Your task to perform on an android device: Search for flights from NYC to Buenos aires Image 0: 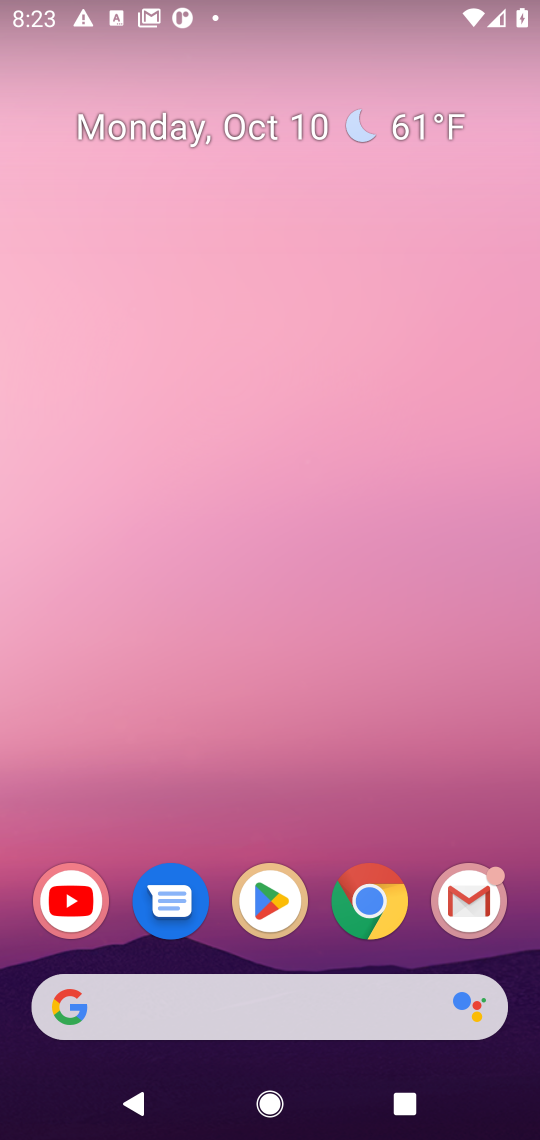
Step 0: click (213, 1008)
Your task to perform on an android device: Search for flights from NYC to Buenos aires Image 1: 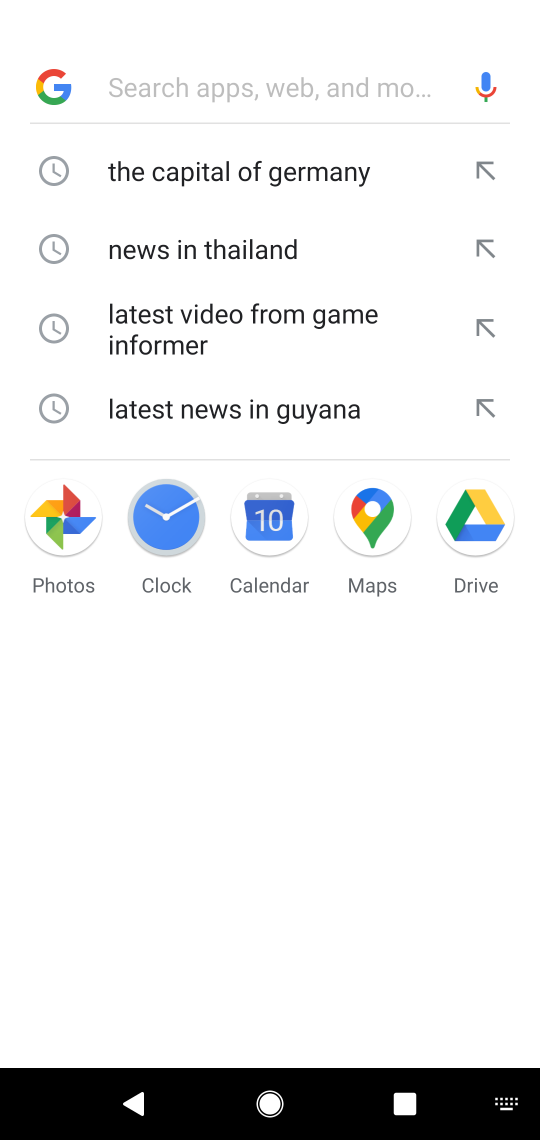
Step 1: type "flights from NYC to Buenos aires"
Your task to perform on an android device: Search for flights from NYC to Buenos aires Image 2: 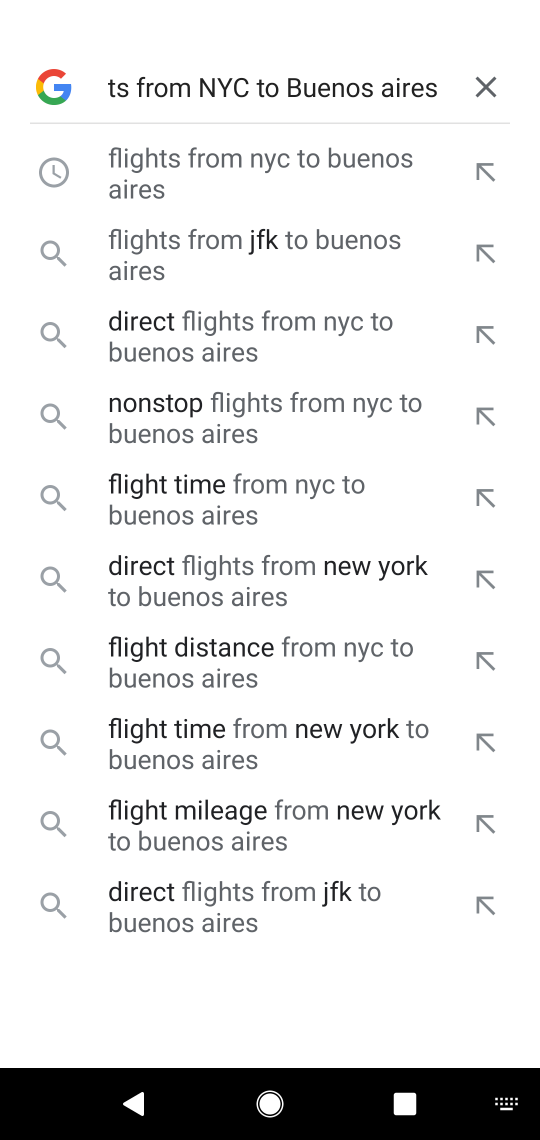
Step 2: press enter
Your task to perform on an android device: Search for flights from NYC to Buenos aires Image 3: 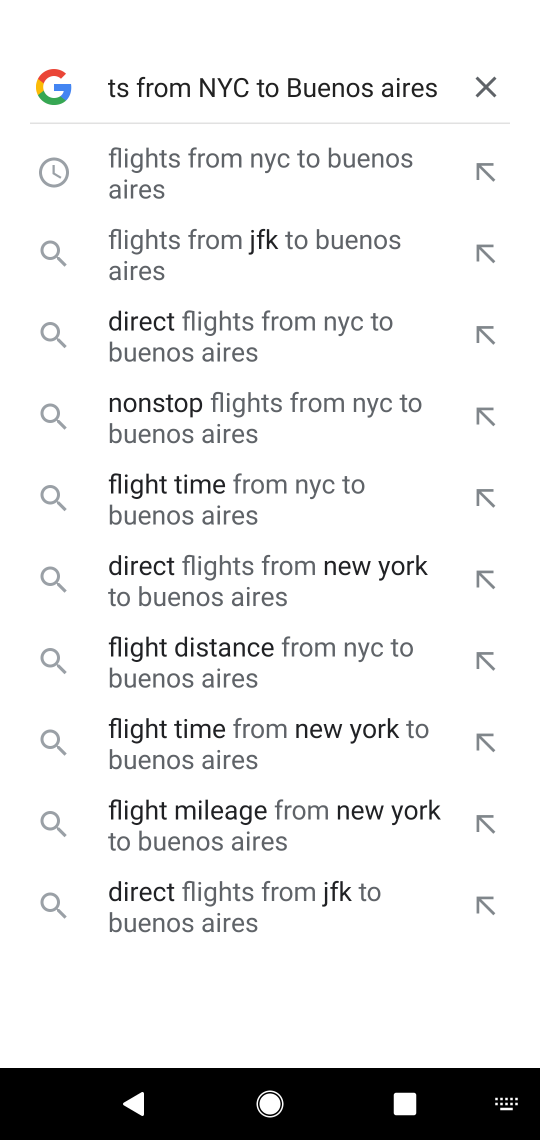
Step 3: type ""
Your task to perform on an android device: Search for flights from NYC to Buenos aires Image 4: 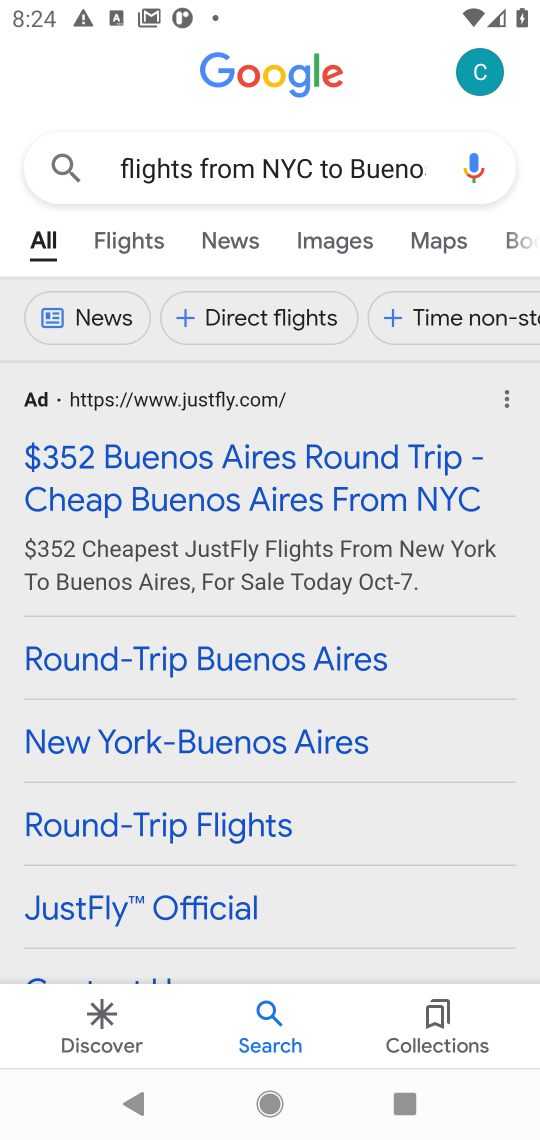
Step 4: click (176, 182)
Your task to perform on an android device: Search for flights from NYC to Buenos aires Image 5: 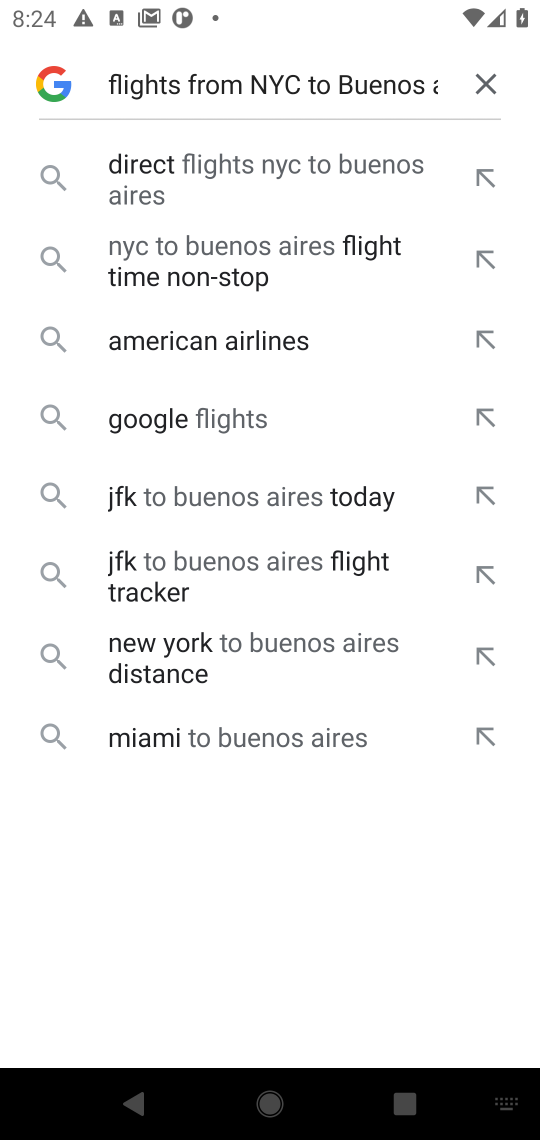
Step 5: click (312, 153)
Your task to perform on an android device: Search for flights from NYC to Buenos aires Image 6: 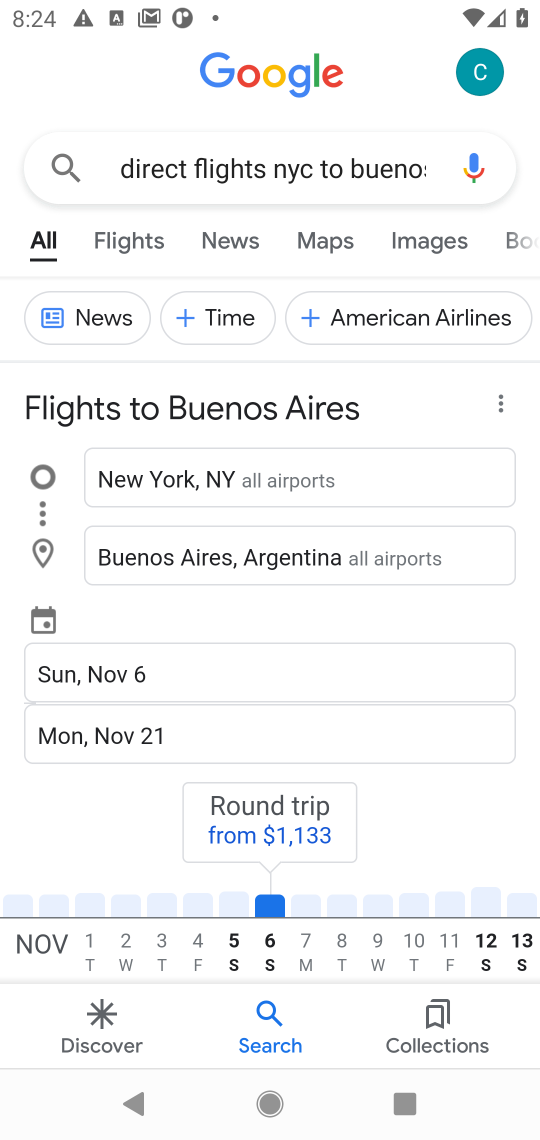
Step 6: drag from (397, 810) to (408, 396)
Your task to perform on an android device: Search for flights from NYC to Buenos aires Image 7: 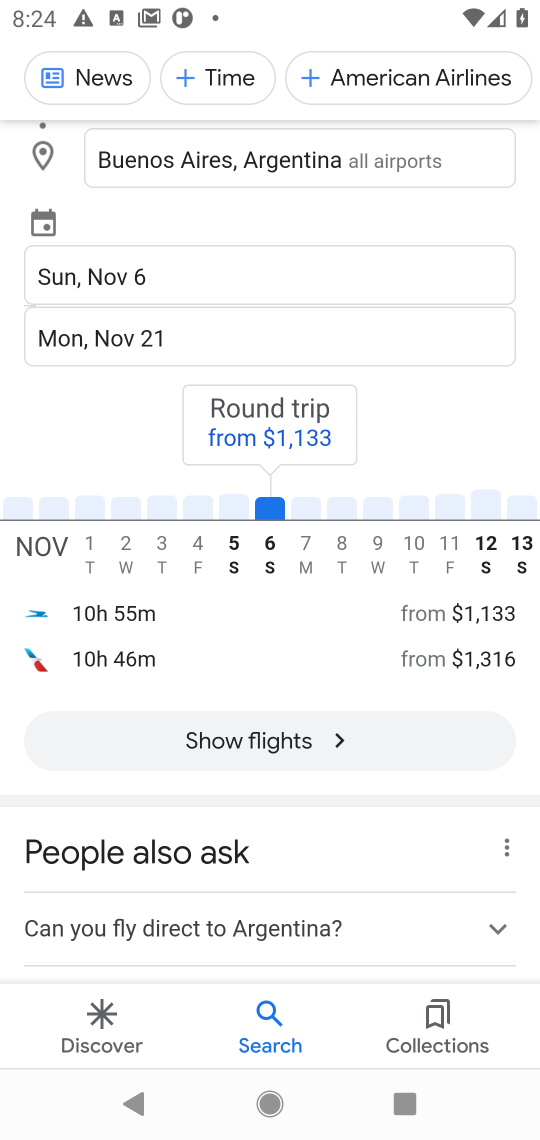
Step 7: drag from (350, 653) to (375, 257)
Your task to perform on an android device: Search for flights from NYC to Buenos aires Image 8: 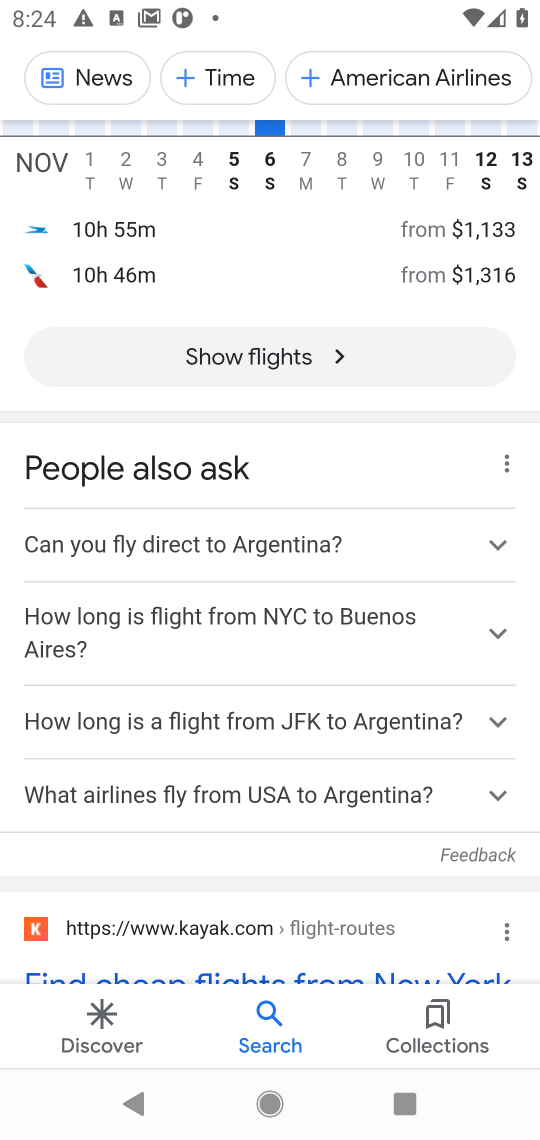
Step 8: drag from (375, 510) to (385, 241)
Your task to perform on an android device: Search for flights from NYC to Buenos aires Image 9: 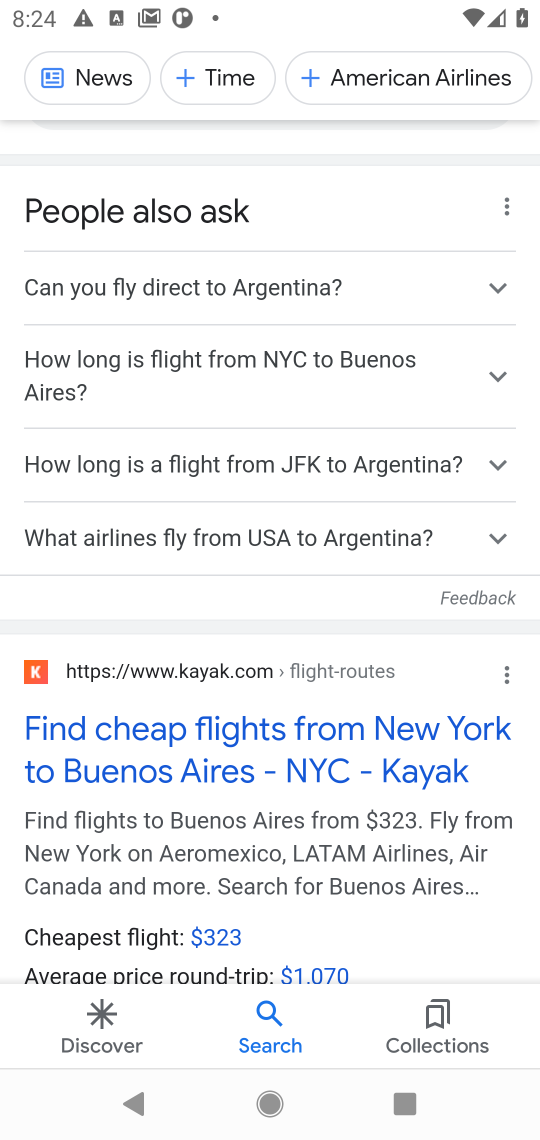
Step 9: drag from (344, 617) to (343, 197)
Your task to perform on an android device: Search for flights from NYC to Buenos aires Image 10: 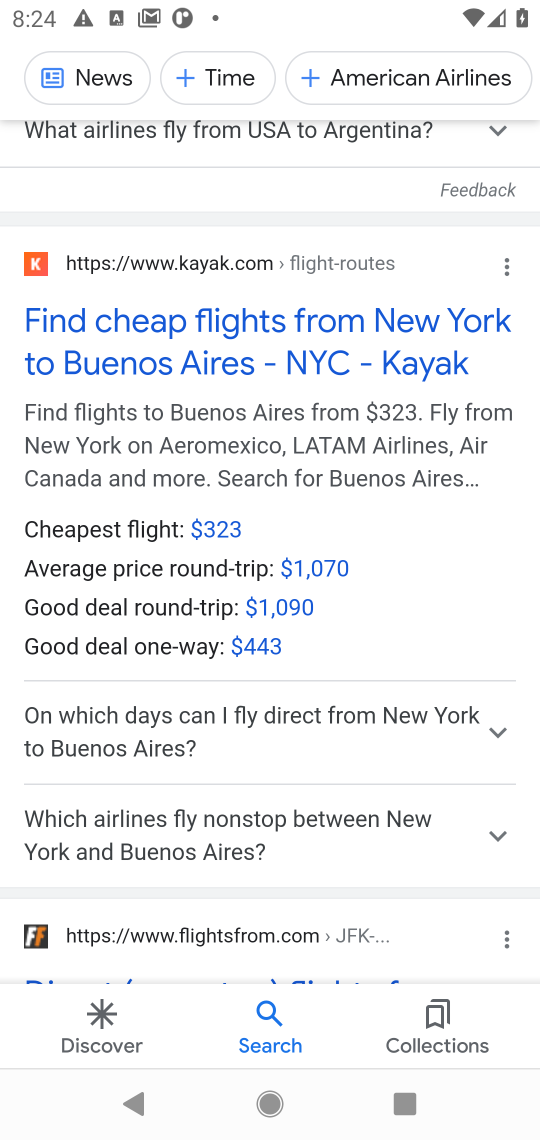
Step 10: drag from (422, 534) to (400, 289)
Your task to perform on an android device: Search for flights from NYC to Buenos aires Image 11: 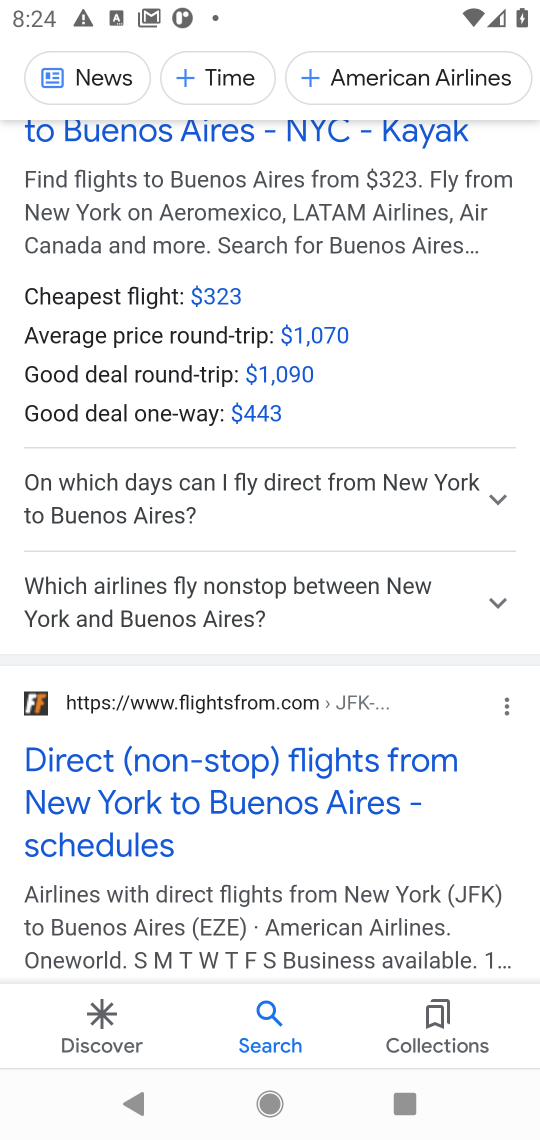
Step 11: drag from (386, 650) to (402, 249)
Your task to perform on an android device: Search for flights from NYC to Buenos aires Image 12: 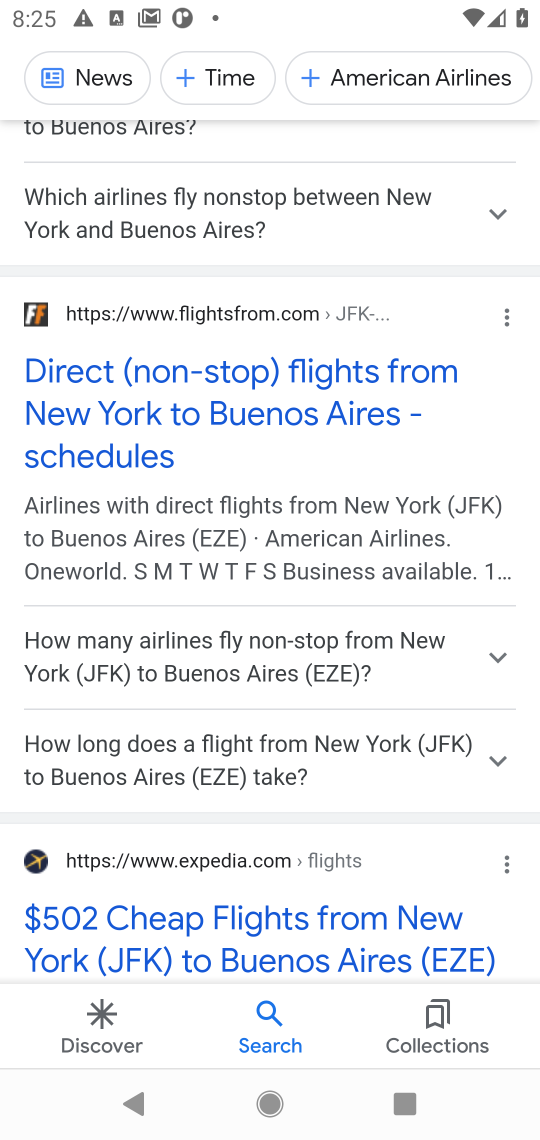
Step 12: drag from (431, 631) to (416, 582)
Your task to perform on an android device: Search for flights from NYC to Buenos aires Image 13: 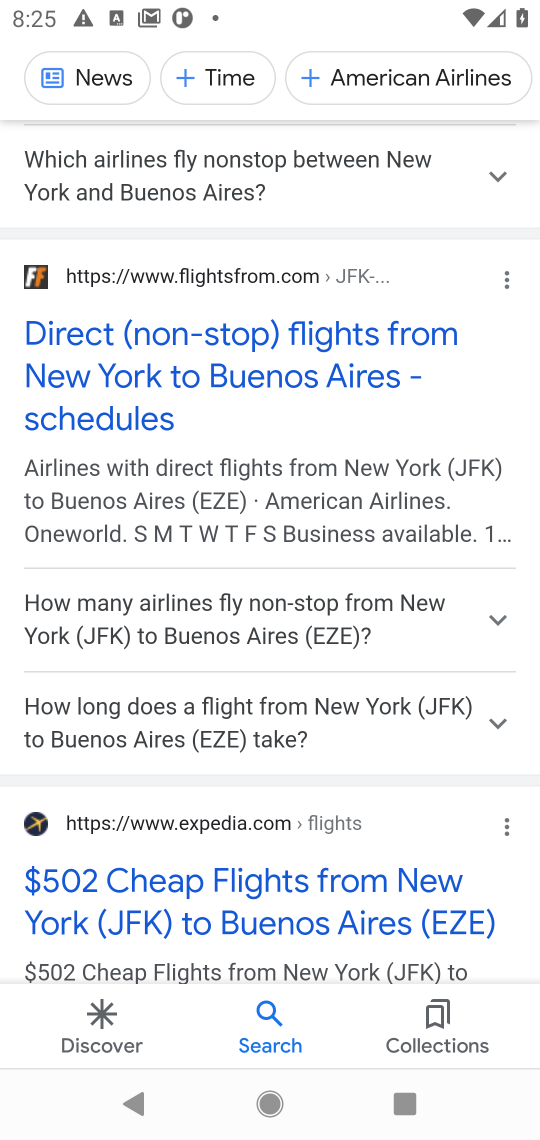
Step 13: click (179, 386)
Your task to perform on an android device: Search for flights from NYC to Buenos aires Image 14: 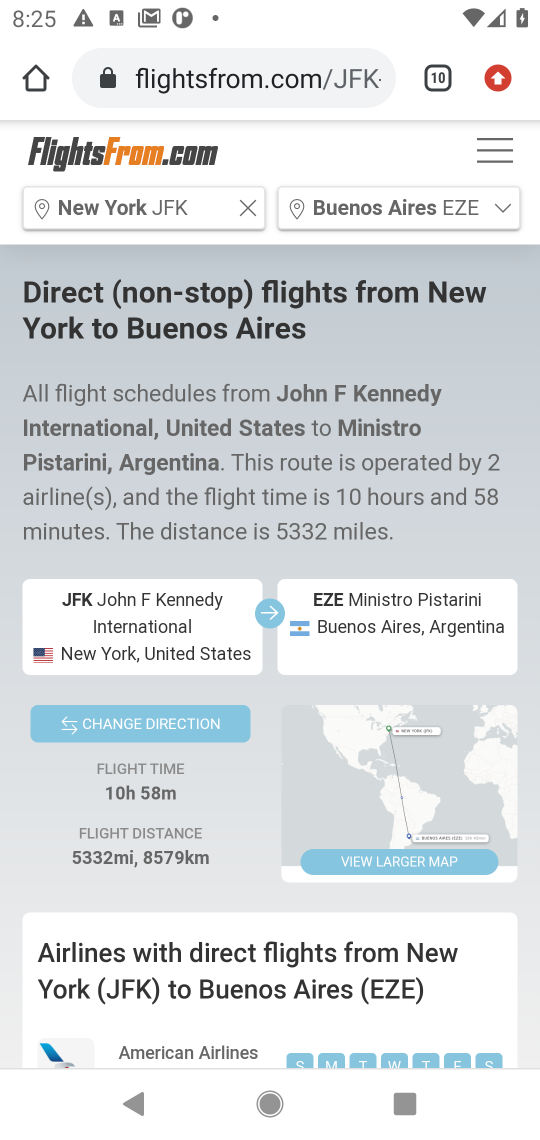
Step 14: drag from (267, 847) to (262, 289)
Your task to perform on an android device: Search for flights from NYC to Buenos aires Image 15: 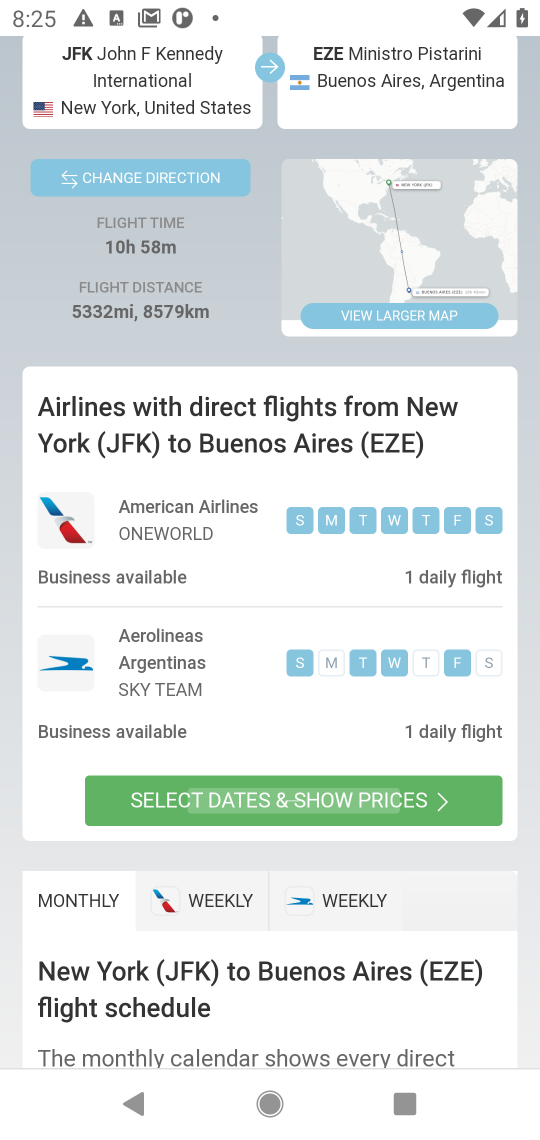
Step 15: drag from (240, 746) to (248, 390)
Your task to perform on an android device: Search for flights from NYC to Buenos aires Image 16: 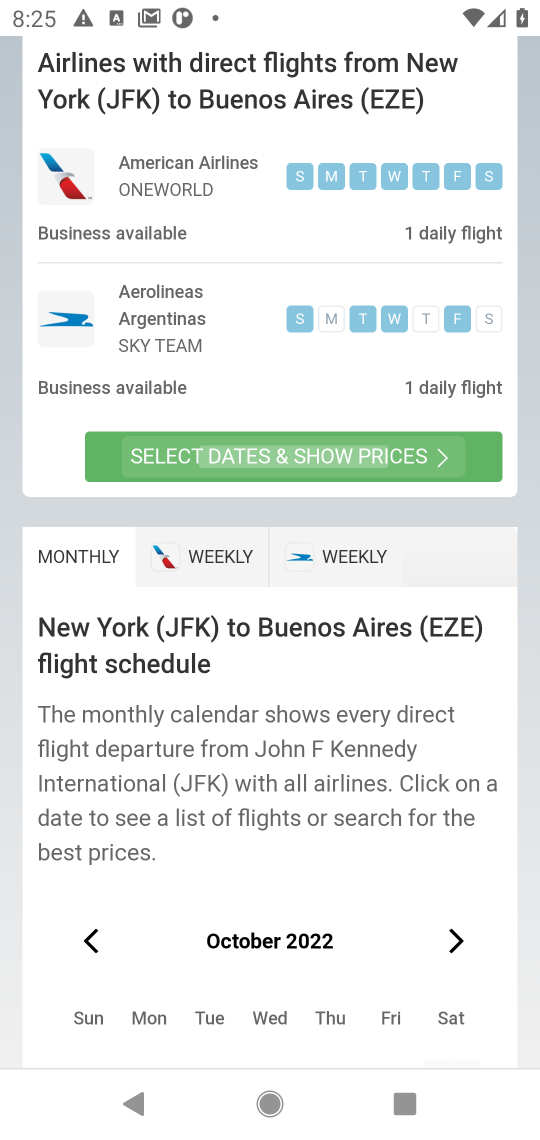
Step 16: drag from (491, 804) to (497, 190)
Your task to perform on an android device: Search for flights from NYC to Buenos aires Image 17: 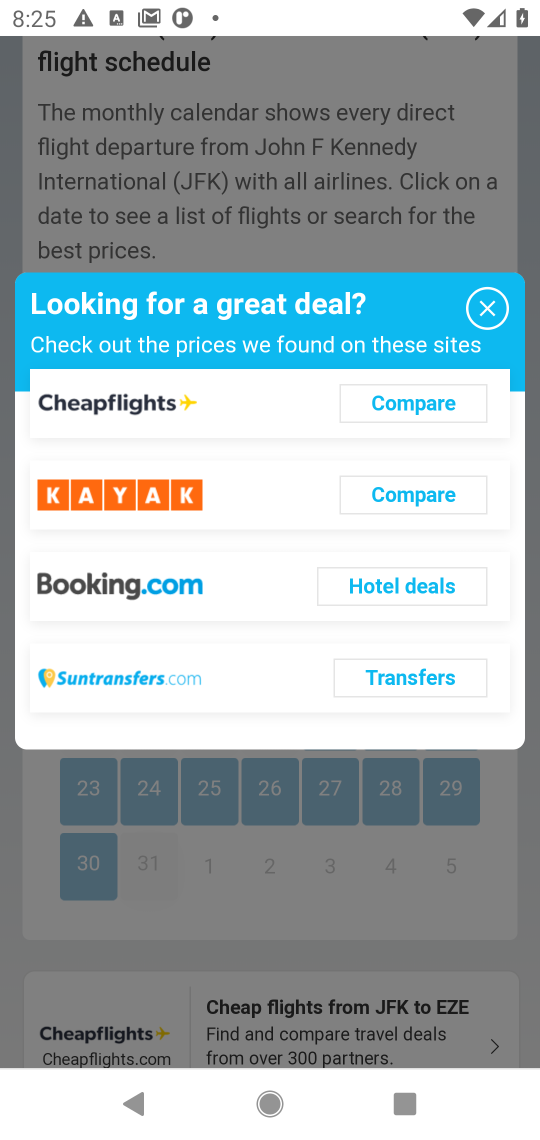
Step 17: drag from (488, 544) to (483, 414)
Your task to perform on an android device: Search for flights from NYC to Buenos aires Image 18: 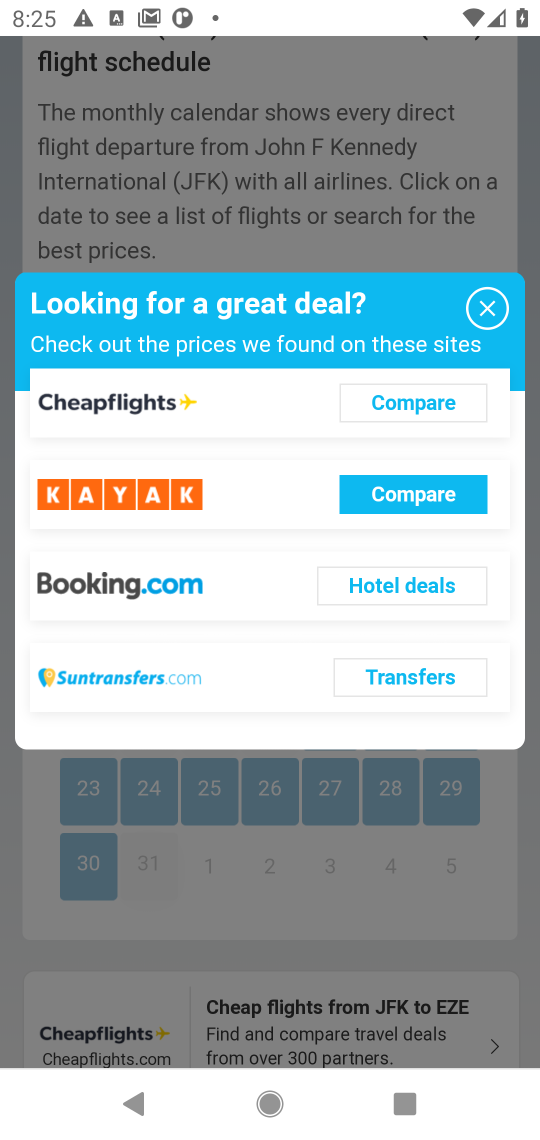
Step 18: click (499, 321)
Your task to perform on an android device: Search for flights from NYC to Buenos aires Image 19: 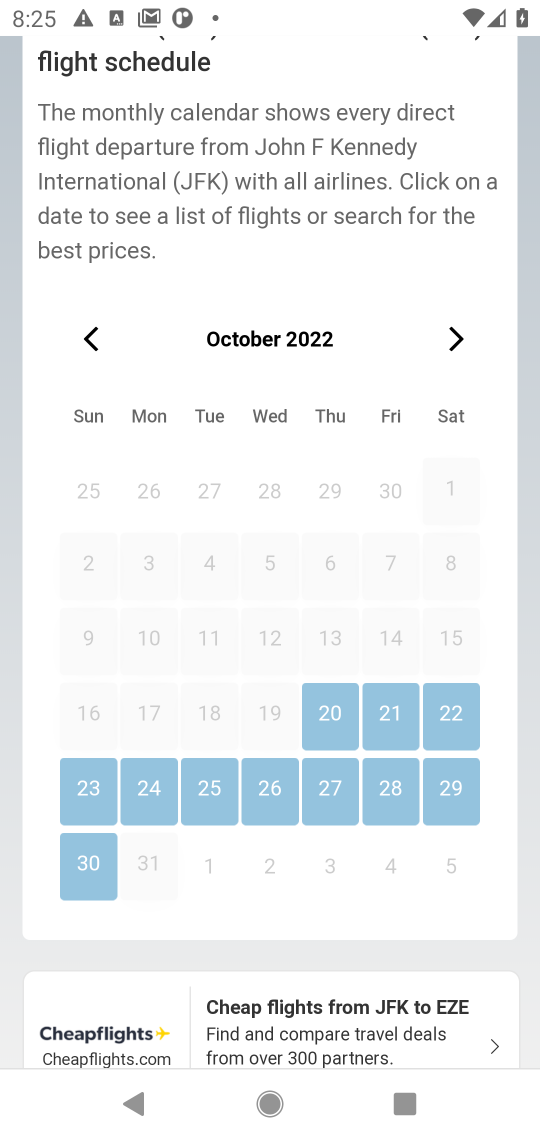
Step 19: drag from (500, 480) to (485, 230)
Your task to perform on an android device: Search for flights from NYC to Buenos aires Image 20: 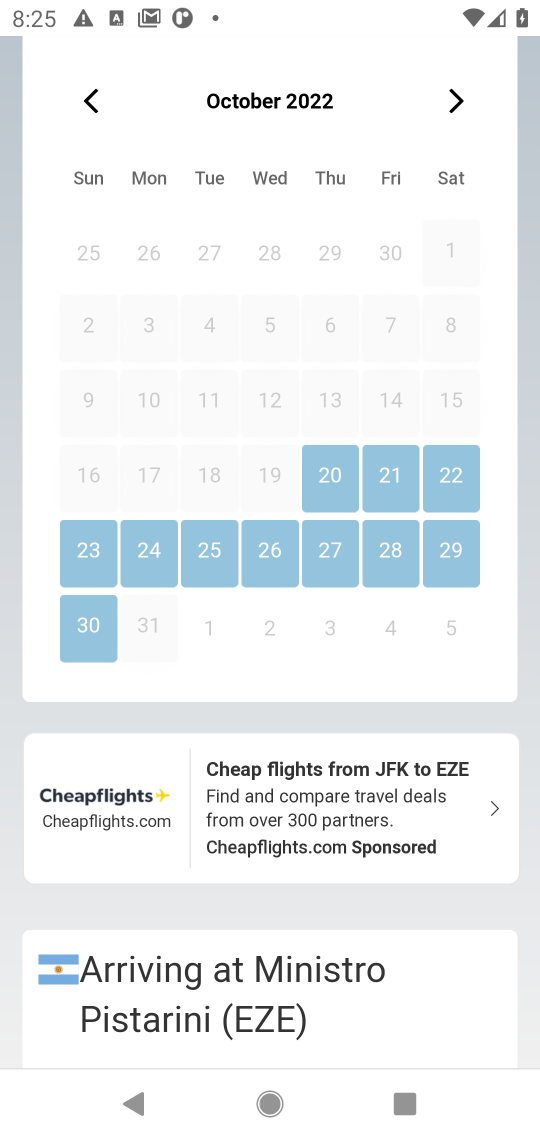
Step 20: drag from (415, 981) to (480, 704)
Your task to perform on an android device: Search for flights from NYC to Buenos aires Image 21: 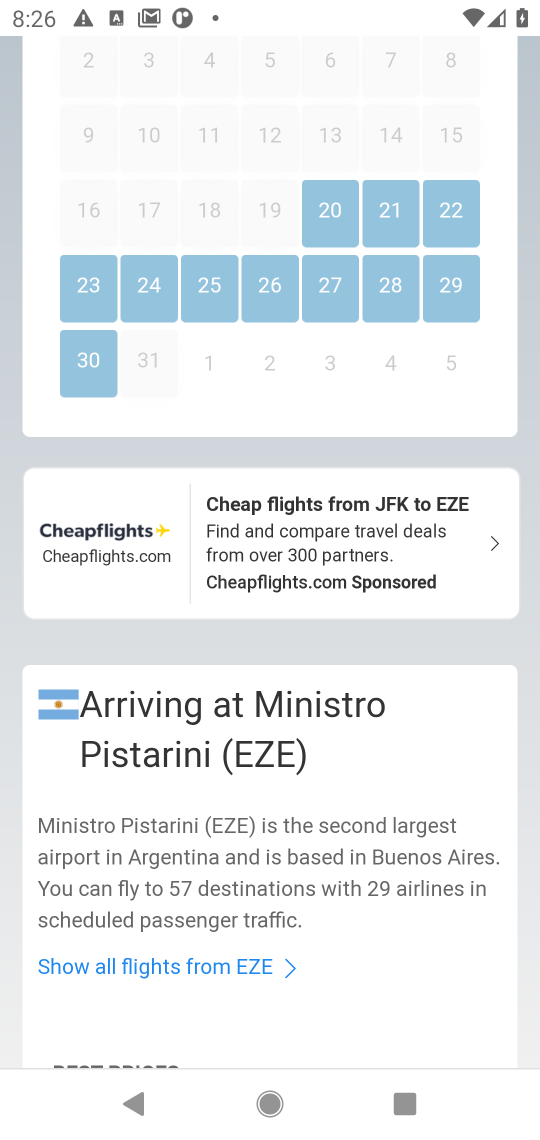
Step 21: click (348, 908)
Your task to perform on an android device: Search for flights from NYC to Buenos aires Image 22: 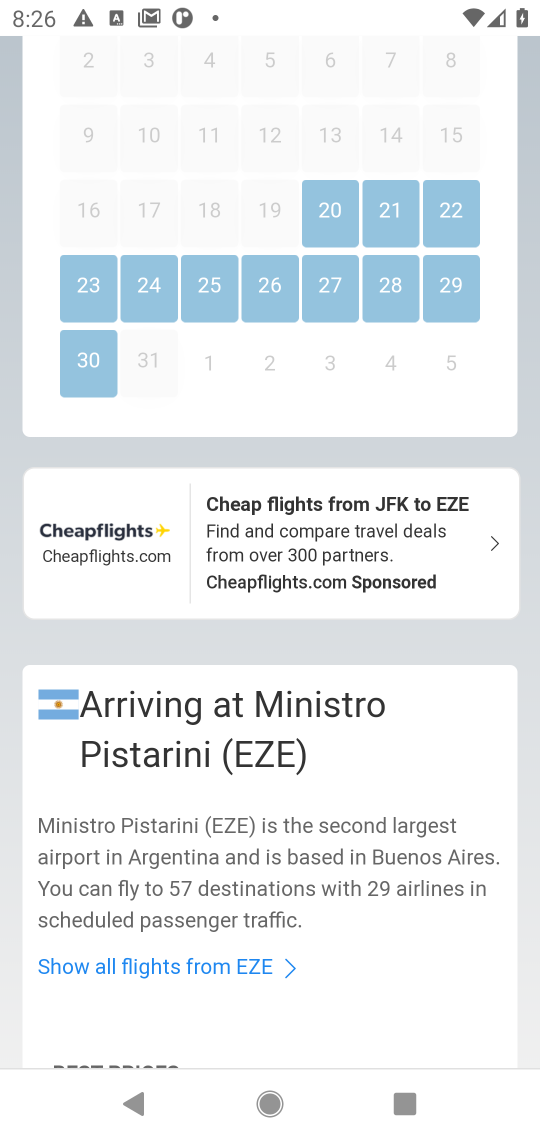
Step 22: drag from (506, 658) to (503, 191)
Your task to perform on an android device: Search for flights from NYC to Buenos aires Image 23: 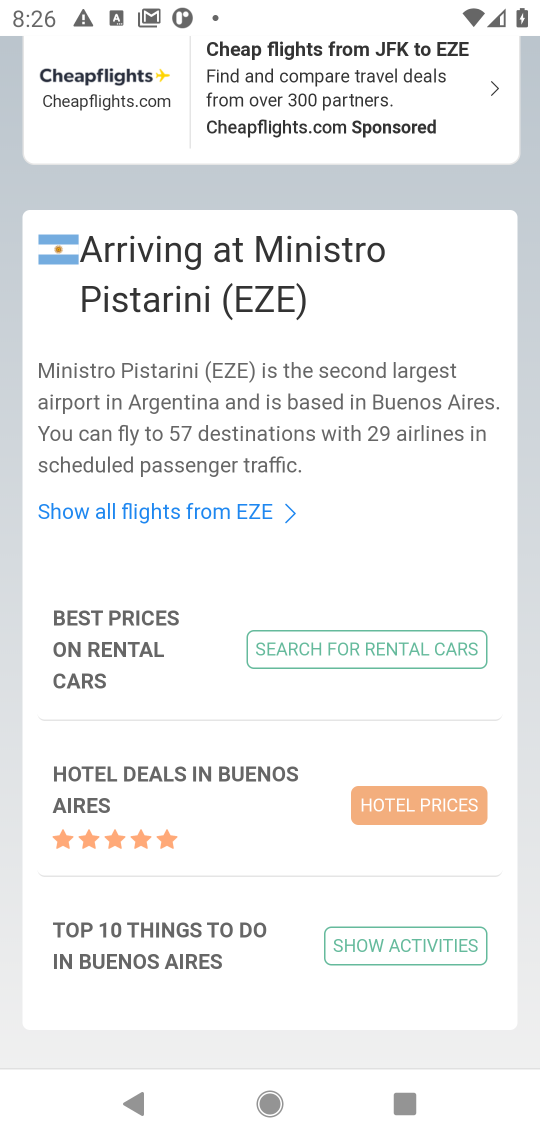
Step 23: drag from (501, 1021) to (531, 861)
Your task to perform on an android device: Search for flights from NYC to Buenos aires Image 24: 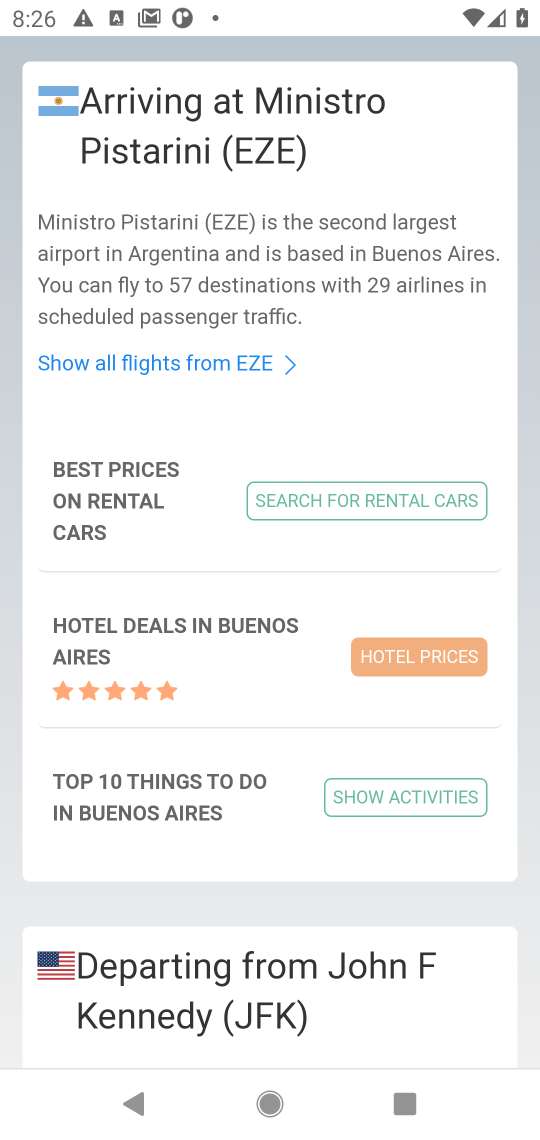
Step 24: drag from (505, 912) to (513, 528)
Your task to perform on an android device: Search for flights from NYC to Buenos aires Image 25: 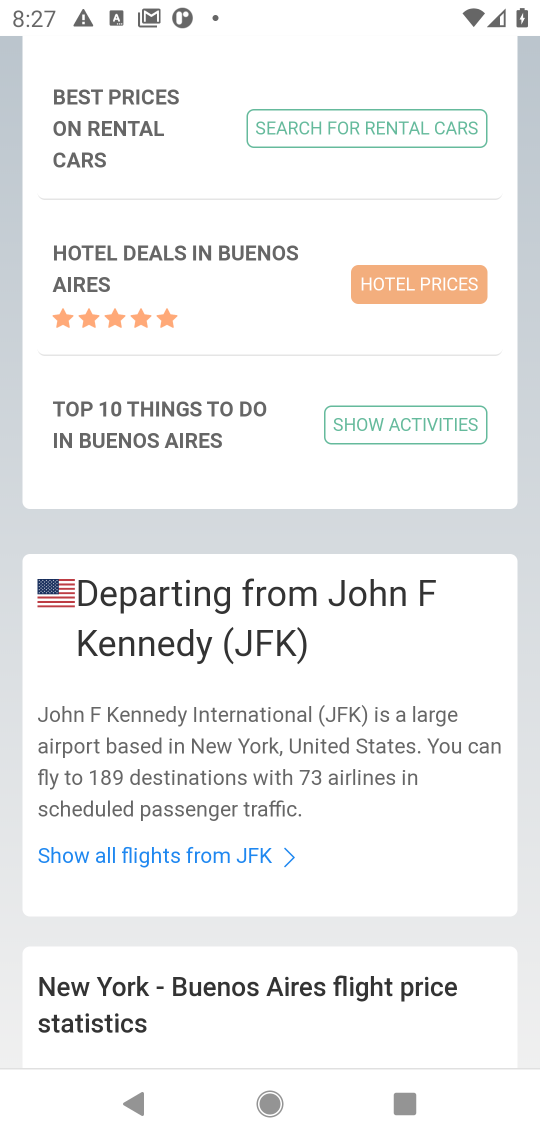
Step 25: drag from (532, 580) to (511, 282)
Your task to perform on an android device: Search for flights from NYC to Buenos aires Image 26: 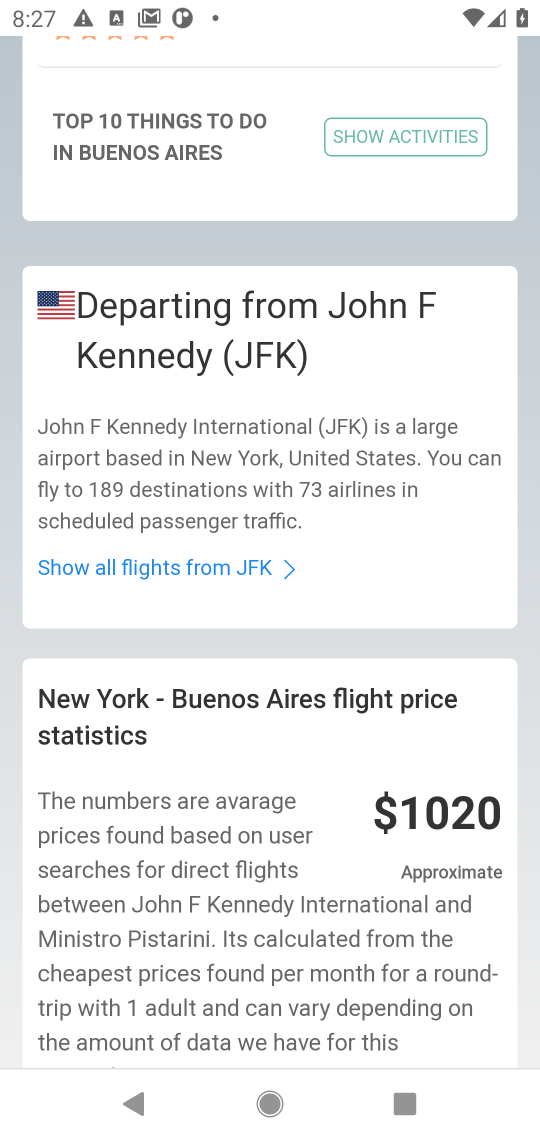
Step 26: click (511, 282)
Your task to perform on an android device: Search for flights from NYC to Buenos aires Image 27: 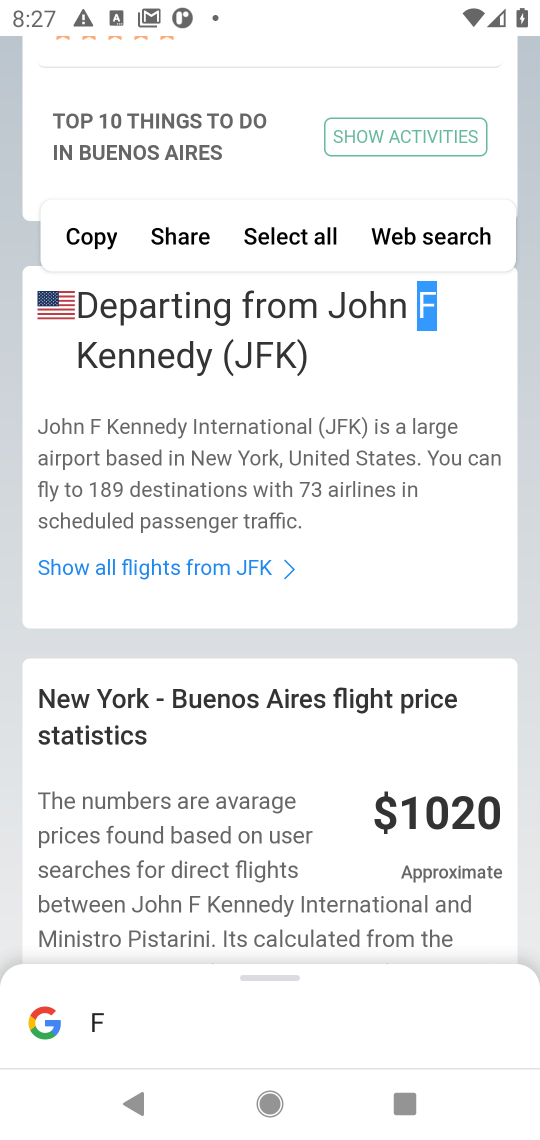
Step 27: click (511, 285)
Your task to perform on an android device: Search for flights from NYC to Buenos aires Image 28: 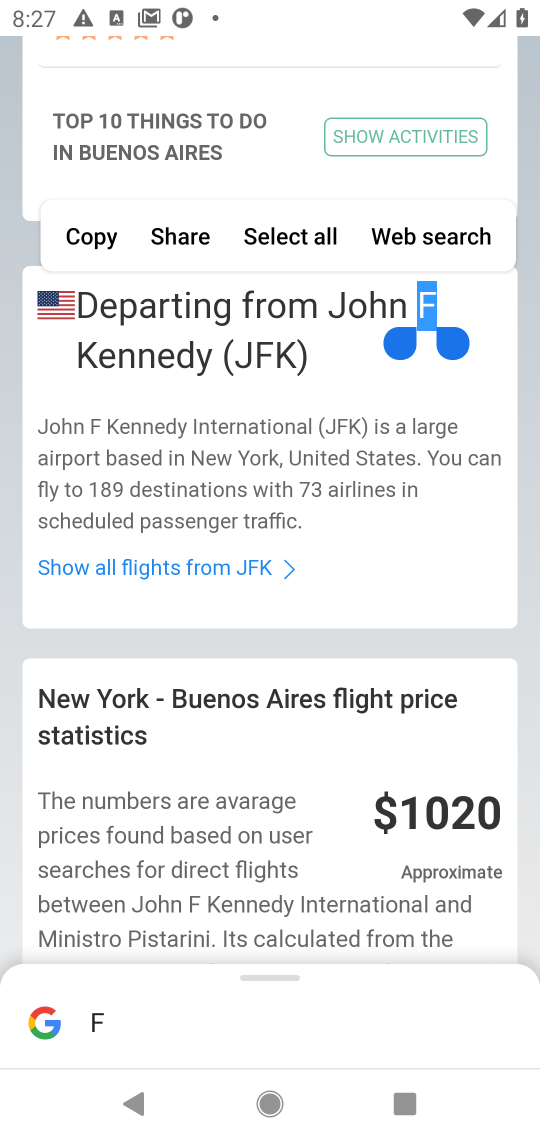
Step 28: drag from (505, 593) to (509, 540)
Your task to perform on an android device: Search for flights from NYC to Buenos aires Image 29: 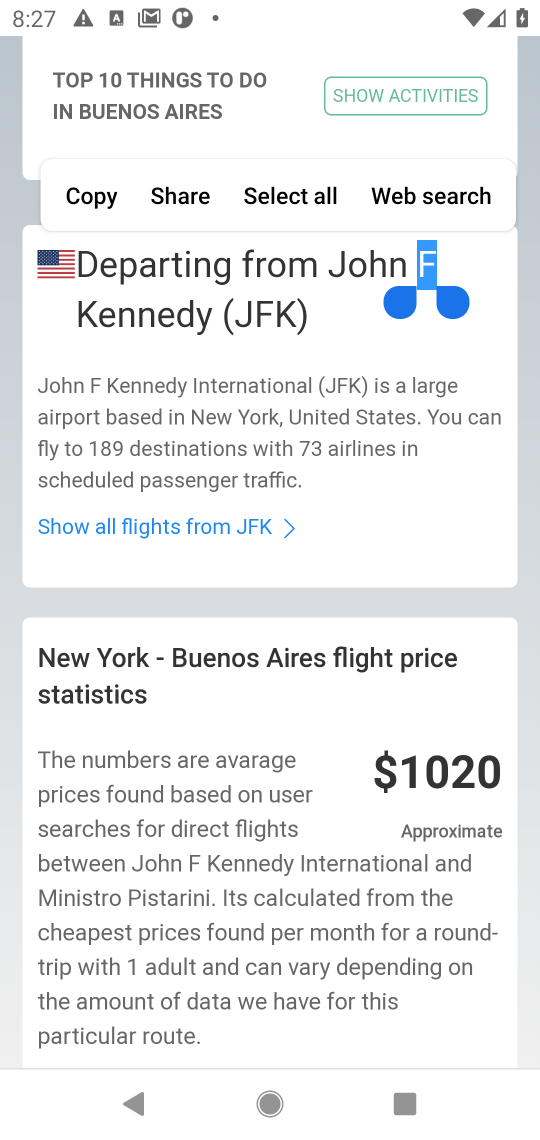
Step 29: click (526, 566)
Your task to perform on an android device: Search for flights from NYC to Buenos aires Image 30: 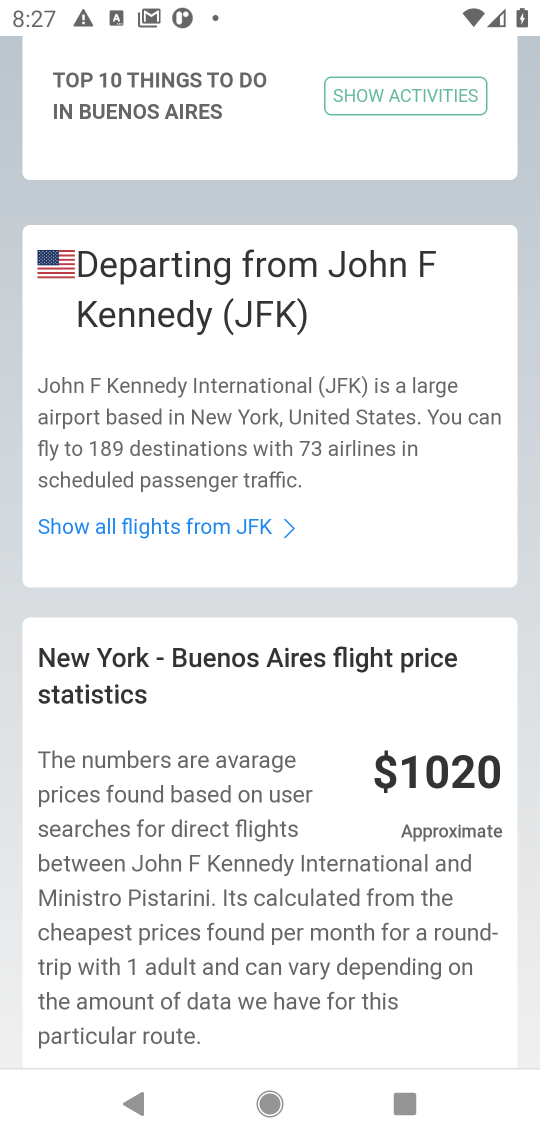
Step 30: drag from (526, 549) to (534, 126)
Your task to perform on an android device: Search for flights from NYC to Buenos aires Image 31: 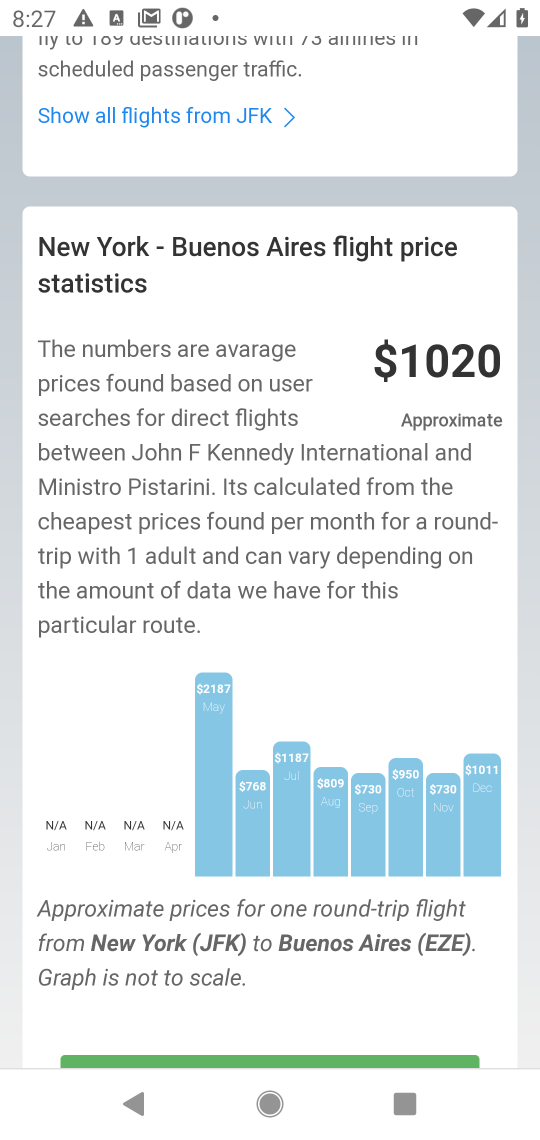
Step 31: drag from (530, 589) to (492, 162)
Your task to perform on an android device: Search for flights from NYC to Buenos aires Image 32: 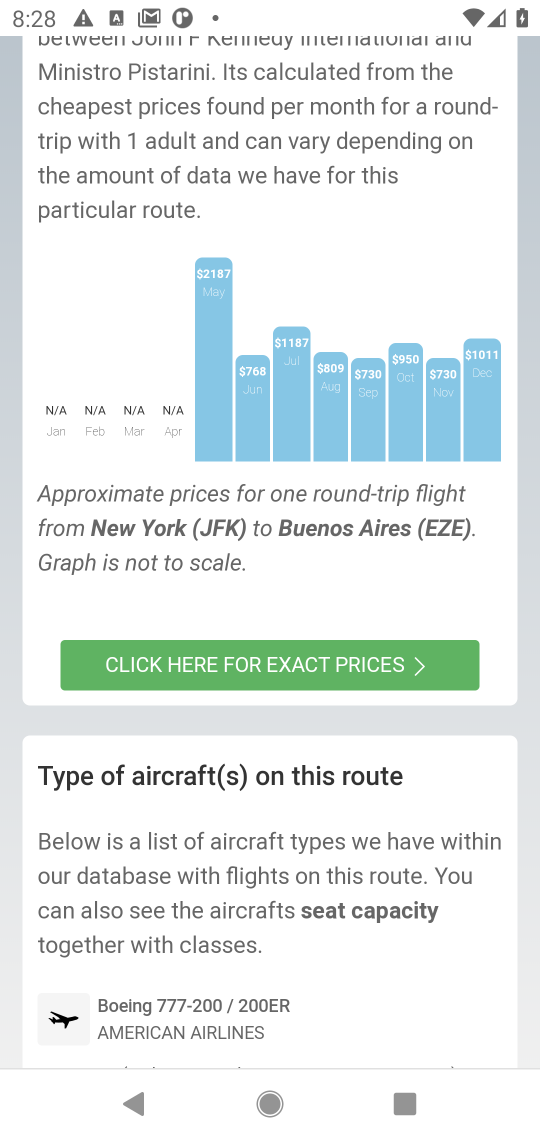
Step 32: click (534, 629)
Your task to perform on an android device: Search for flights from NYC to Buenos aires Image 33: 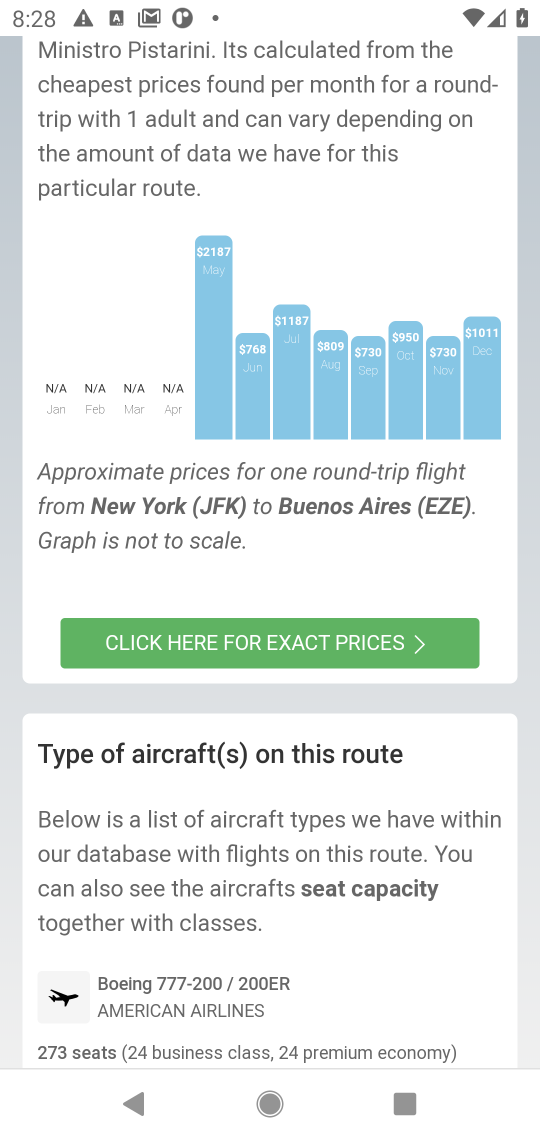
Step 33: task complete